Your task to perform on an android device: open wifi settings Image 0: 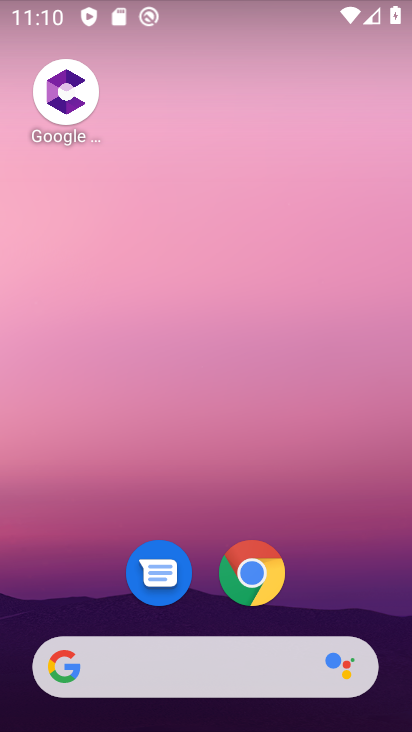
Step 0: drag from (214, 563) to (237, 257)
Your task to perform on an android device: open wifi settings Image 1: 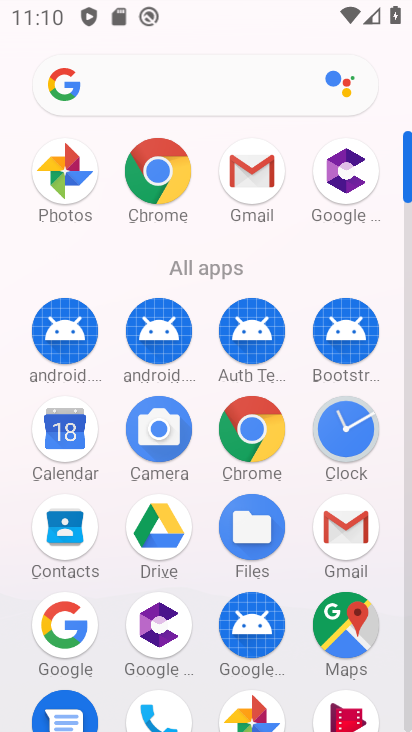
Step 1: drag from (196, 654) to (224, 202)
Your task to perform on an android device: open wifi settings Image 2: 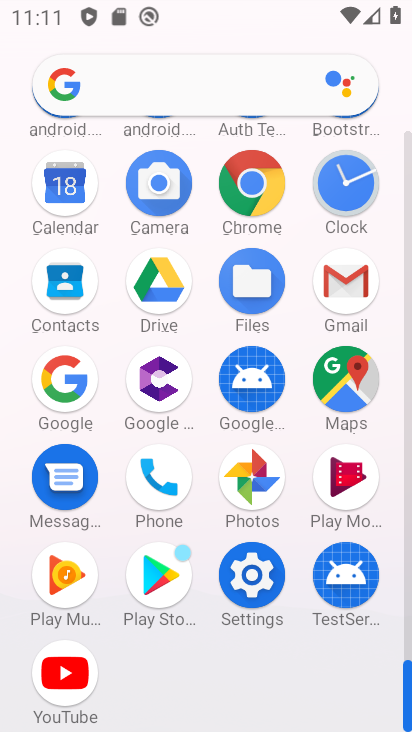
Step 2: click (262, 598)
Your task to perform on an android device: open wifi settings Image 3: 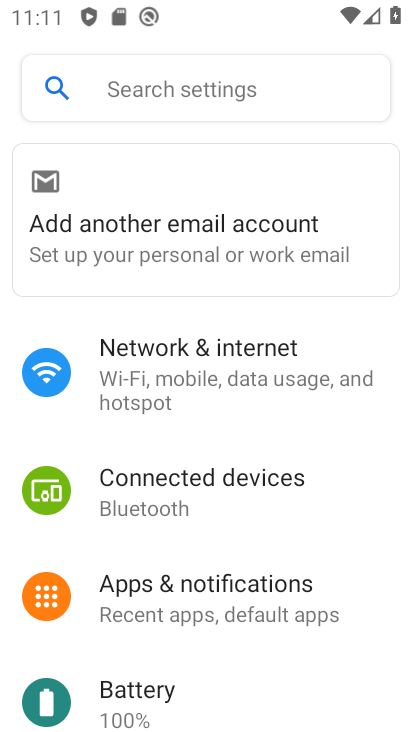
Step 3: click (218, 383)
Your task to perform on an android device: open wifi settings Image 4: 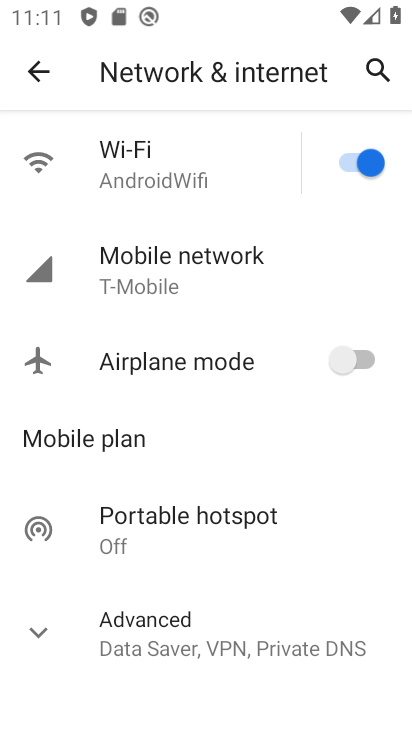
Step 4: click (197, 171)
Your task to perform on an android device: open wifi settings Image 5: 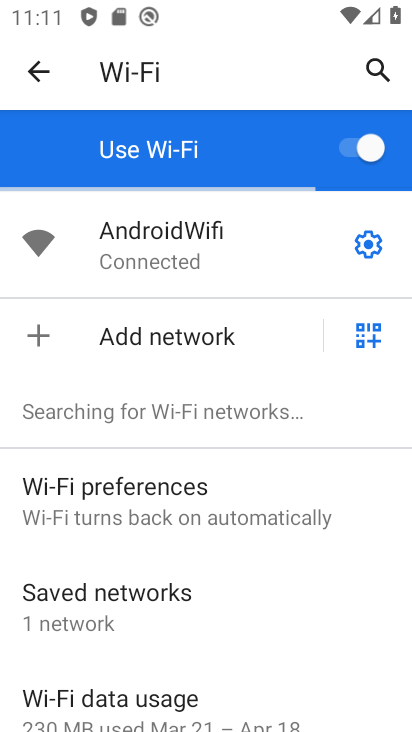
Step 5: task complete